Your task to perform on an android device: Search for vegetarian restaurants on Maps Image 0: 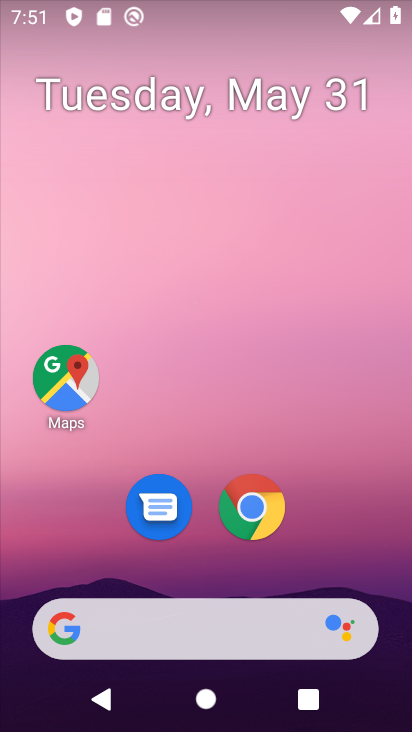
Step 0: click (63, 378)
Your task to perform on an android device: Search for vegetarian restaurants on Maps Image 1: 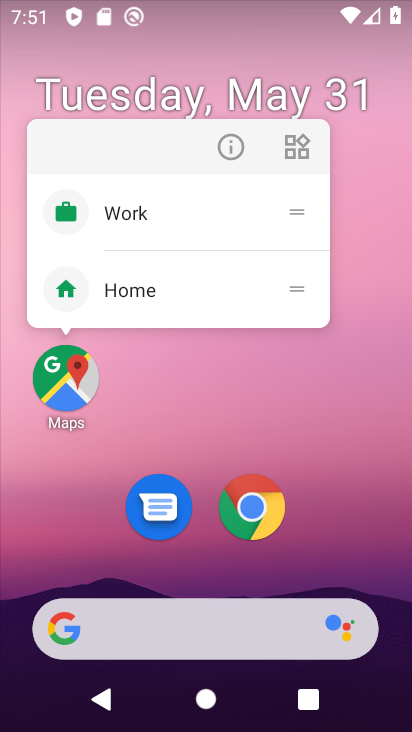
Step 1: click (63, 378)
Your task to perform on an android device: Search for vegetarian restaurants on Maps Image 2: 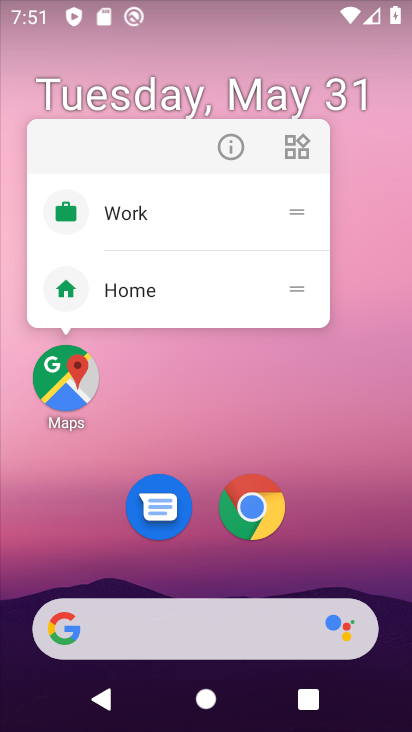
Step 2: click (70, 372)
Your task to perform on an android device: Search for vegetarian restaurants on Maps Image 3: 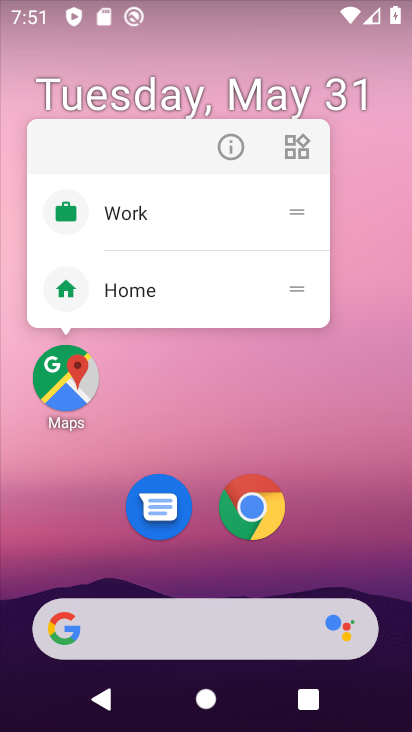
Step 3: click (161, 417)
Your task to perform on an android device: Search for vegetarian restaurants on Maps Image 4: 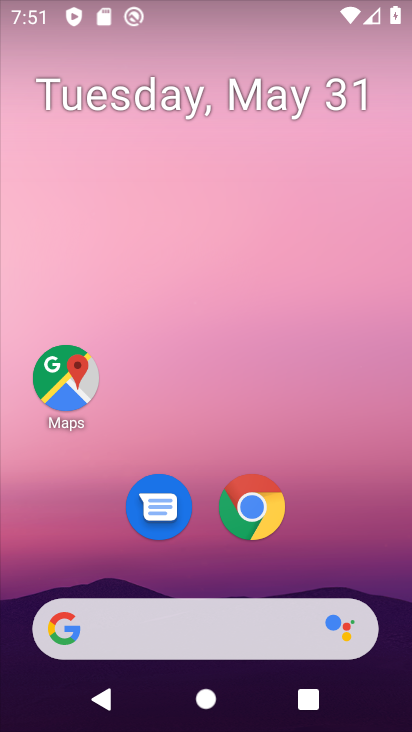
Step 4: click (68, 392)
Your task to perform on an android device: Search for vegetarian restaurants on Maps Image 5: 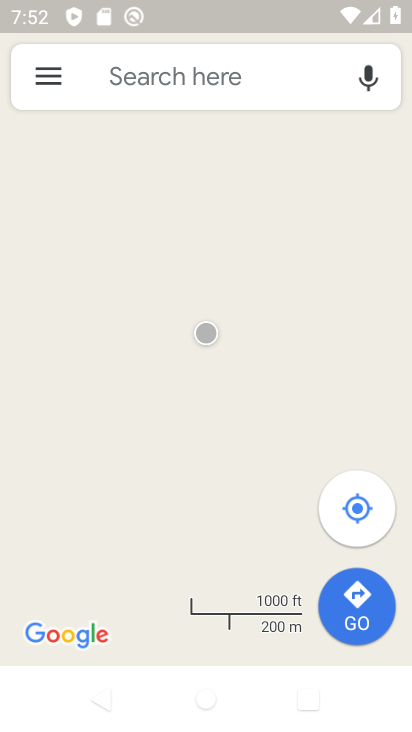
Step 5: click (228, 62)
Your task to perform on an android device: Search for vegetarian restaurants on Maps Image 6: 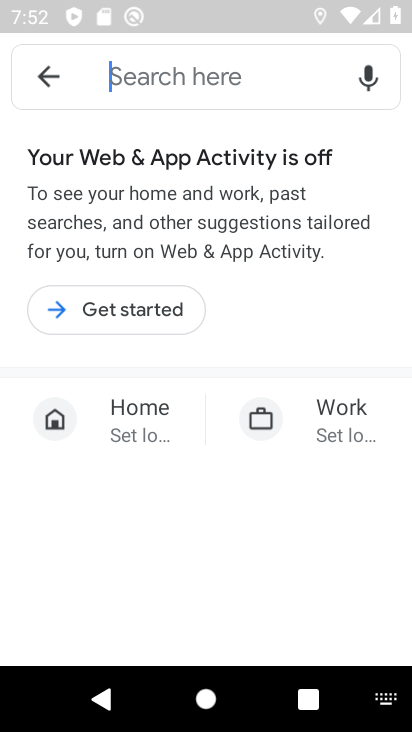
Step 6: type "vegetarian restaurants"
Your task to perform on an android device: Search for vegetarian restaurants on Maps Image 7: 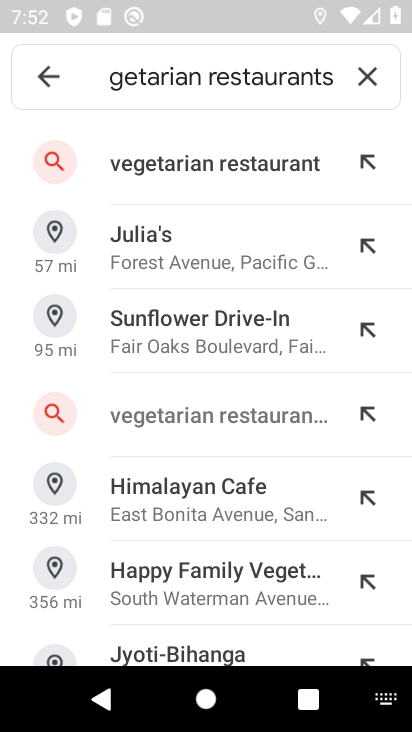
Step 7: press enter
Your task to perform on an android device: Search for vegetarian restaurants on Maps Image 8: 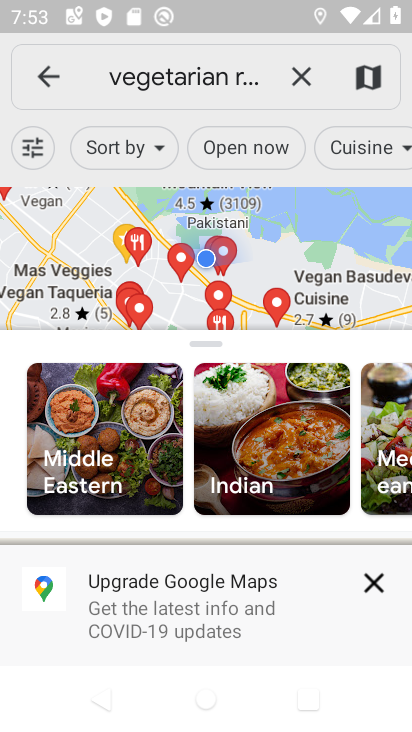
Step 8: task complete